Your task to perform on an android device: choose inbox layout in the gmail app Image 0: 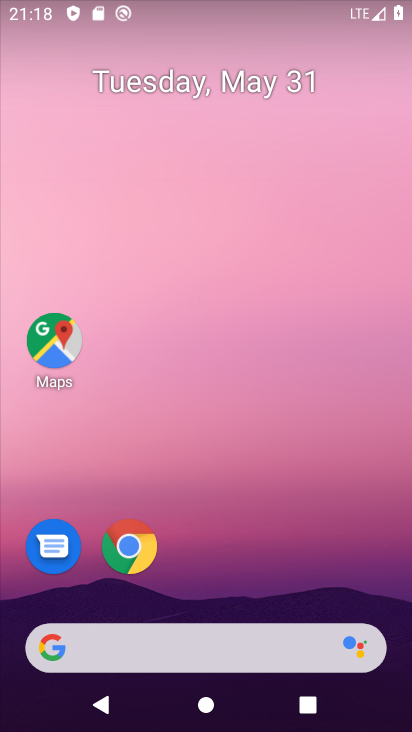
Step 0: drag from (385, 478) to (342, 171)
Your task to perform on an android device: choose inbox layout in the gmail app Image 1: 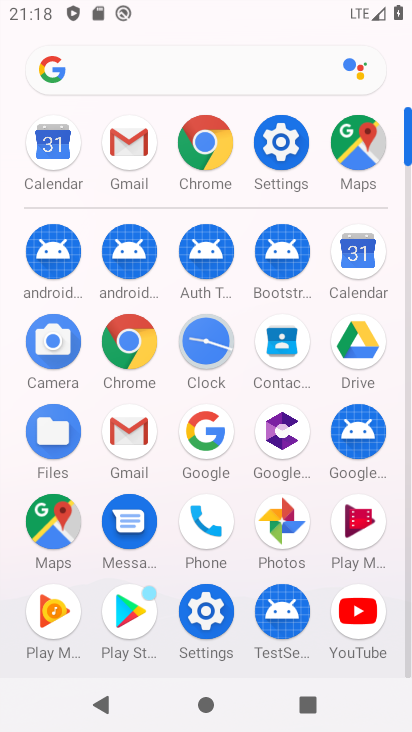
Step 1: click (117, 431)
Your task to perform on an android device: choose inbox layout in the gmail app Image 2: 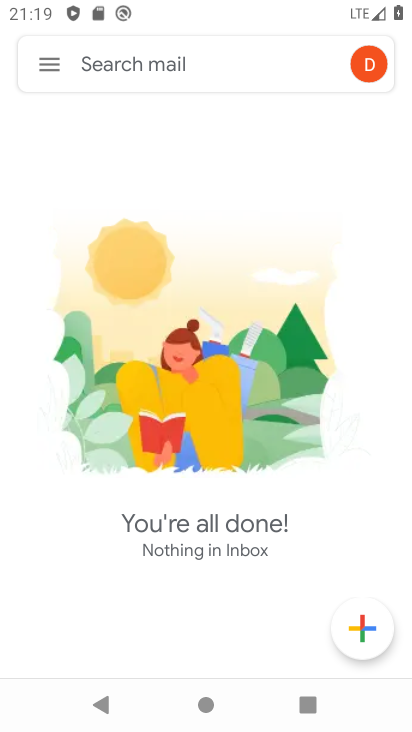
Step 2: click (39, 57)
Your task to perform on an android device: choose inbox layout in the gmail app Image 3: 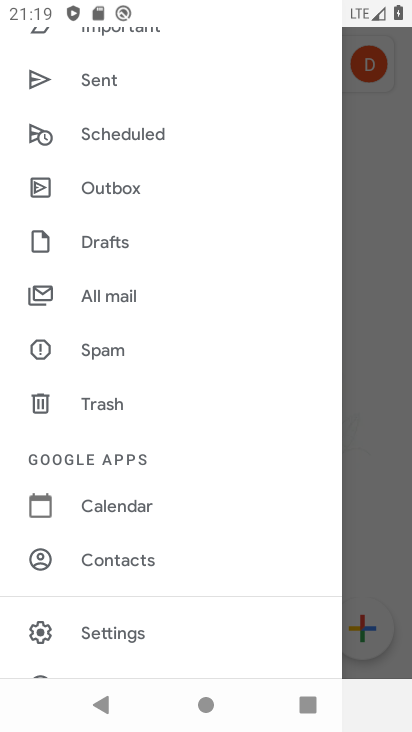
Step 3: click (108, 630)
Your task to perform on an android device: choose inbox layout in the gmail app Image 4: 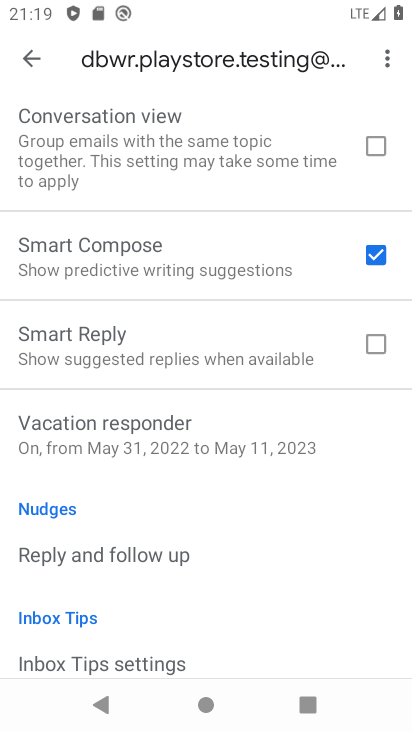
Step 4: drag from (206, 119) to (242, 619)
Your task to perform on an android device: choose inbox layout in the gmail app Image 5: 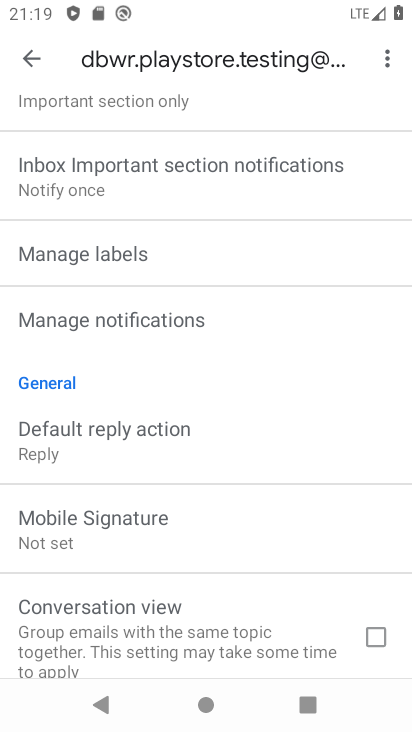
Step 5: drag from (227, 182) to (244, 522)
Your task to perform on an android device: choose inbox layout in the gmail app Image 6: 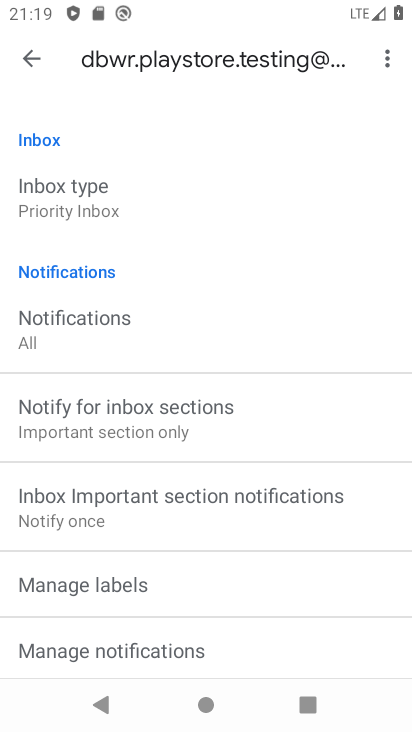
Step 6: drag from (259, 186) to (279, 418)
Your task to perform on an android device: choose inbox layout in the gmail app Image 7: 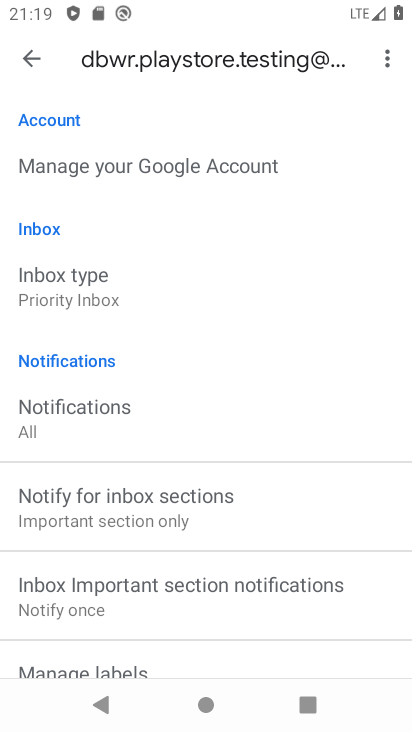
Step 7: click (47, 274)
Your task to perform on an android device: choose inbox layout in the gmail app Image 8: 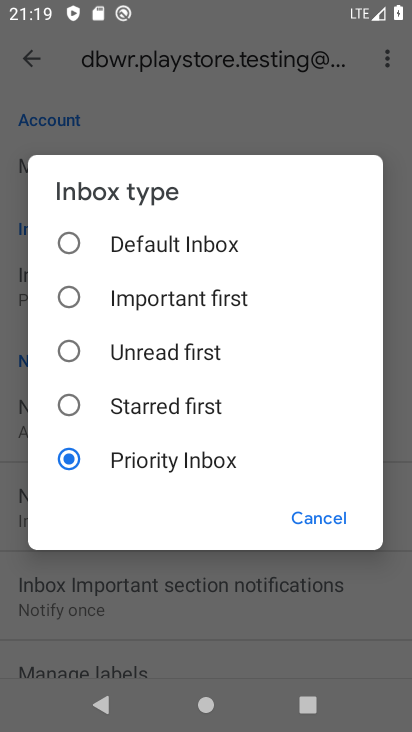
Step 8: click (74, 236)
Your task to perform on an android device: choose inbox layout in the gmail app Image 9: 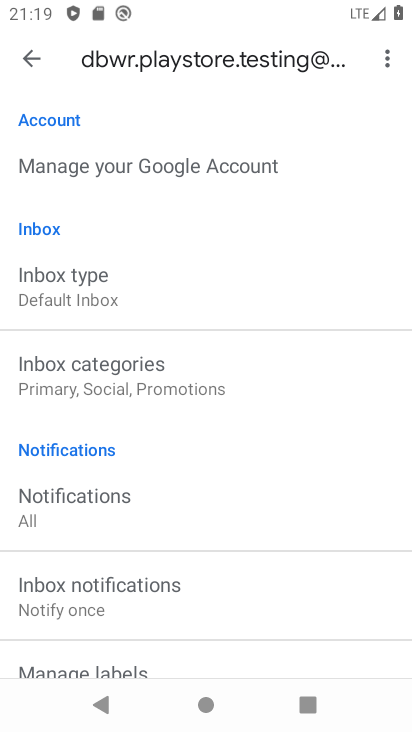
Step 9: task complete